Your task to perform on an android device: Clear the cart on costco.com. Add "asus zenbook" to the cart on costco.com Image 0: 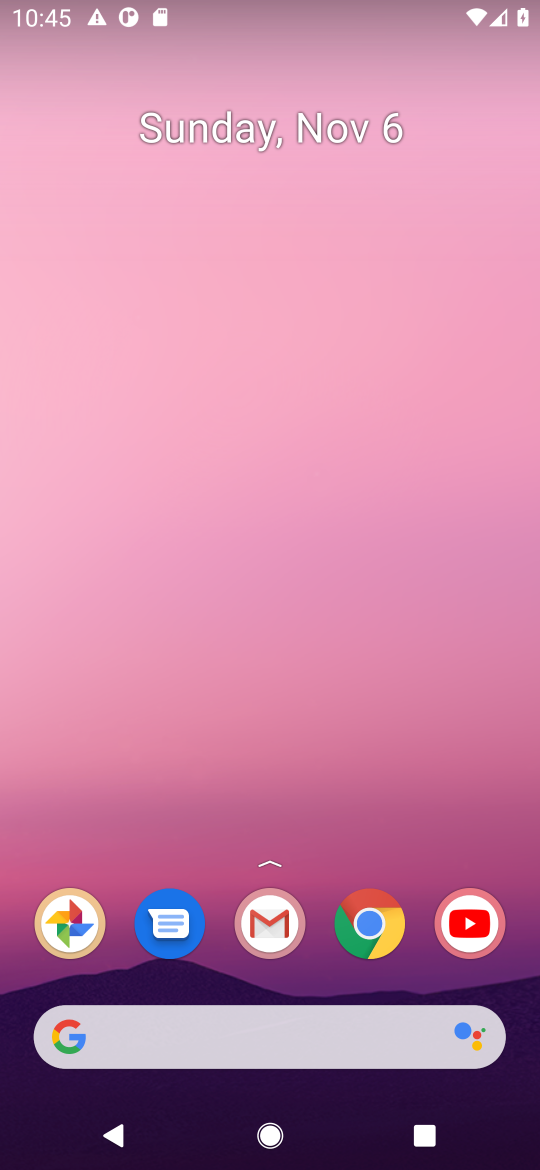
Step 0: click (373, 925)
Your task to perform on an android device: Clear the cart on costco.com. Add "asus zenbook" to the cart on costco.com Image 1: 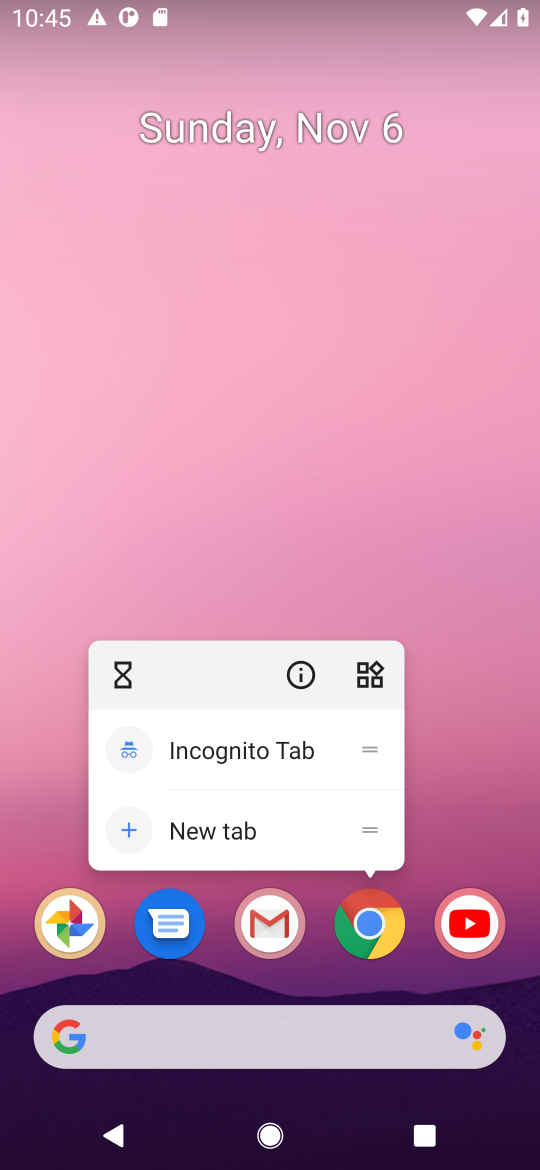
Step 1: click (373, 925)
Your task to perform on an android device: Clear the cart on costco.com. Add "asus zenbook" to the cart on costco.com Image 2: 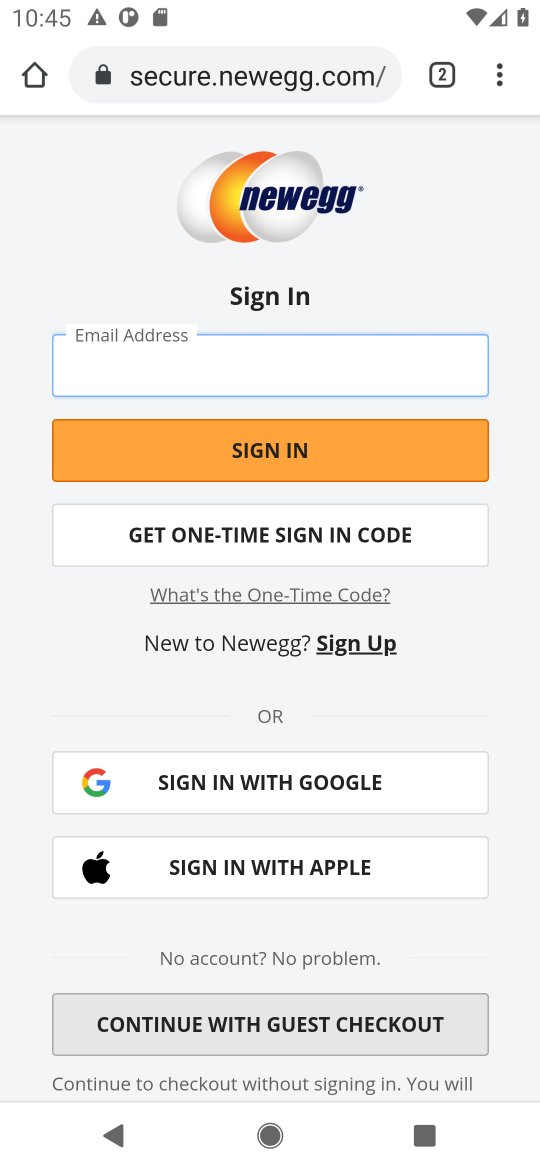
Step 2: click (152, 86)
Your task to perform on an android device: Clear the cart on costco.com. Add "asus zenbook" to the cart on costco.com Image 3: 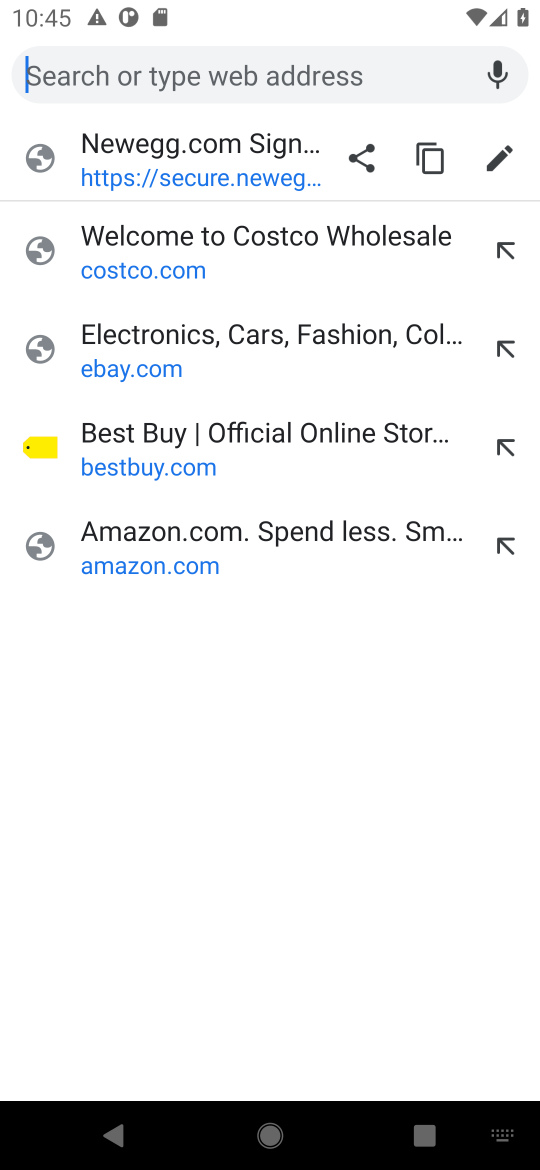
Step 3: click (138, 268)
Your task to perform on an android device: Clear the cart on costco.com. Add "asus zenbook" to the cart on costco.com Image 4: 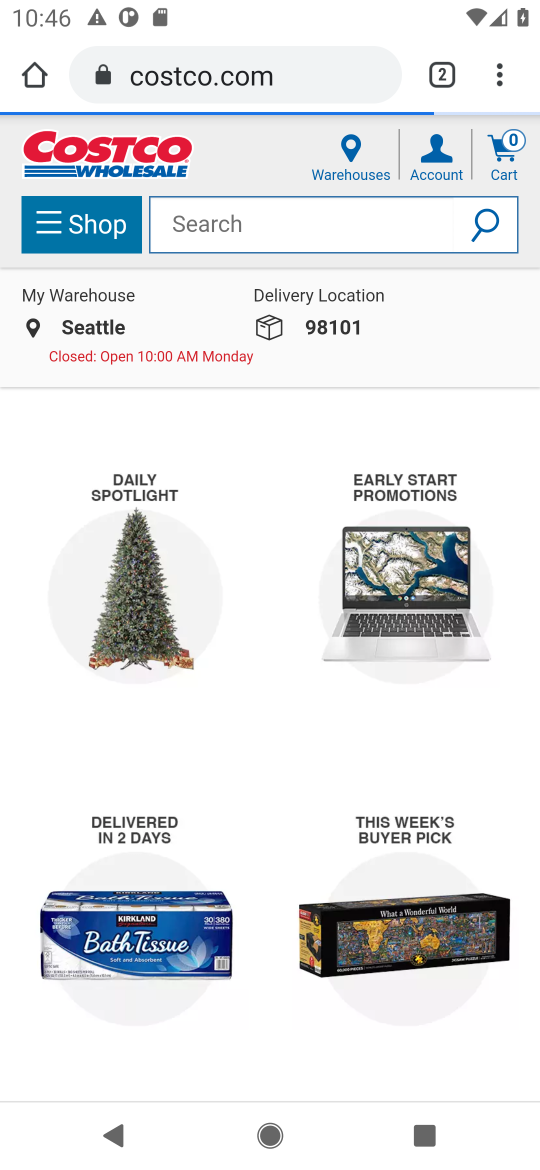
Step 4: click (510, 154)
Your task to perform on an android device: Clear the cart on costco.com. Add "asus zenbook" to the cart on costco.com Image 5: 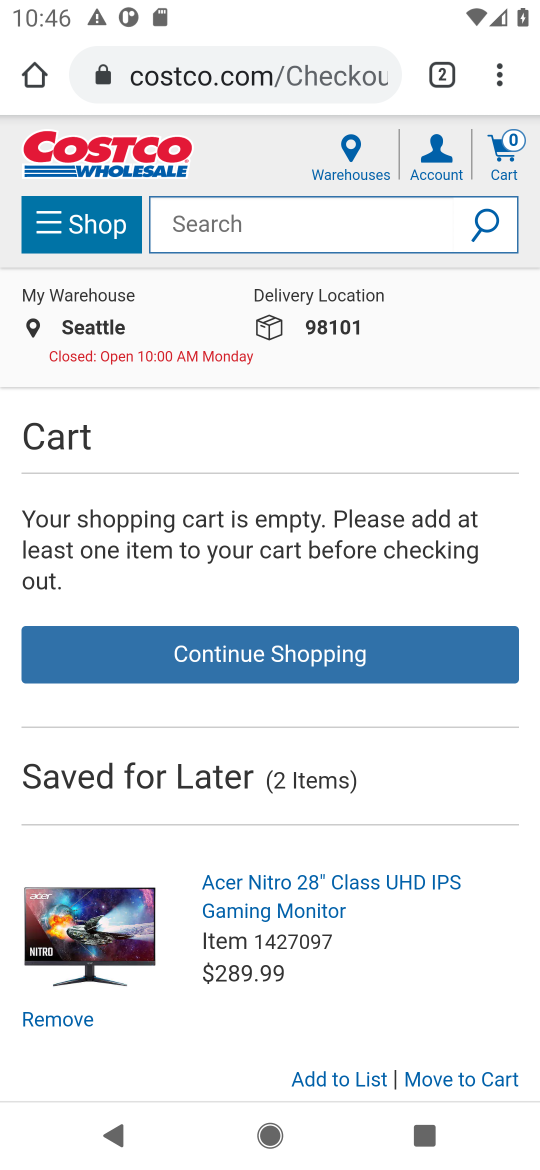
Step 5: click (207, 236)
Your task to perform on an android device: Clear the cart on costco.com. Add "asus zenbook" to the cart on costco.com Image 6: 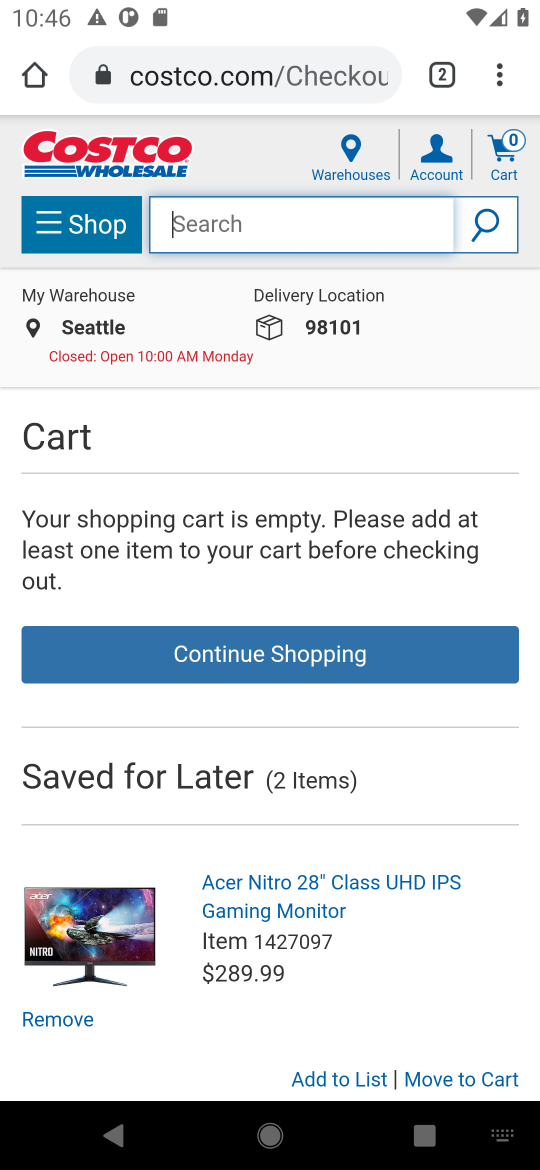
Step 6: type "asus zenbook"
Your task to perform on an android device: Clear the cart on costco.com. Add "asus zenbook" to the cart on costco.com Image 7: 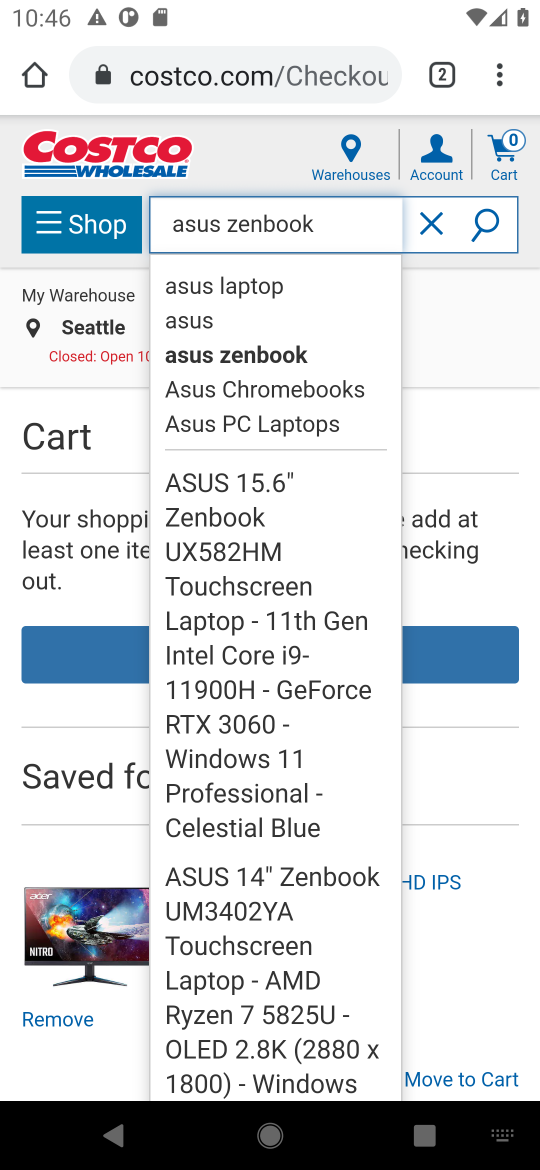
Step 7: click (208, 358)
Your task to perform on an android device: Clear the cart on costco.com. Add "asus zenbook" to the cart on costco.com Image 8: 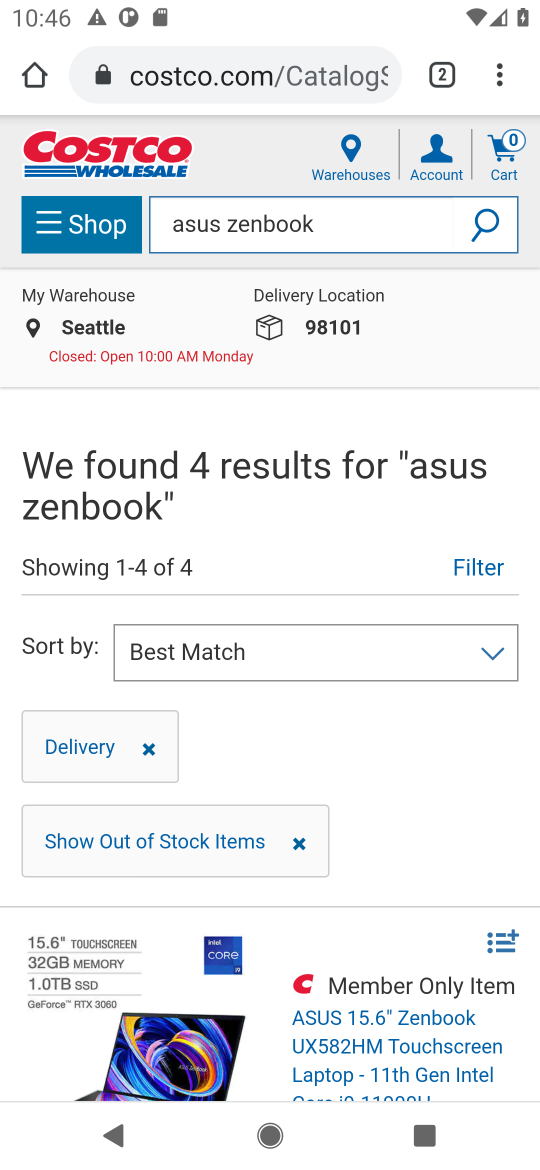
Step 8: drag from (315, 893) to (363, 557)
Your task to perform on an android device: Clear the cart on costco.com. Add "asus zenbook" to the cart on costco.com Image 9: 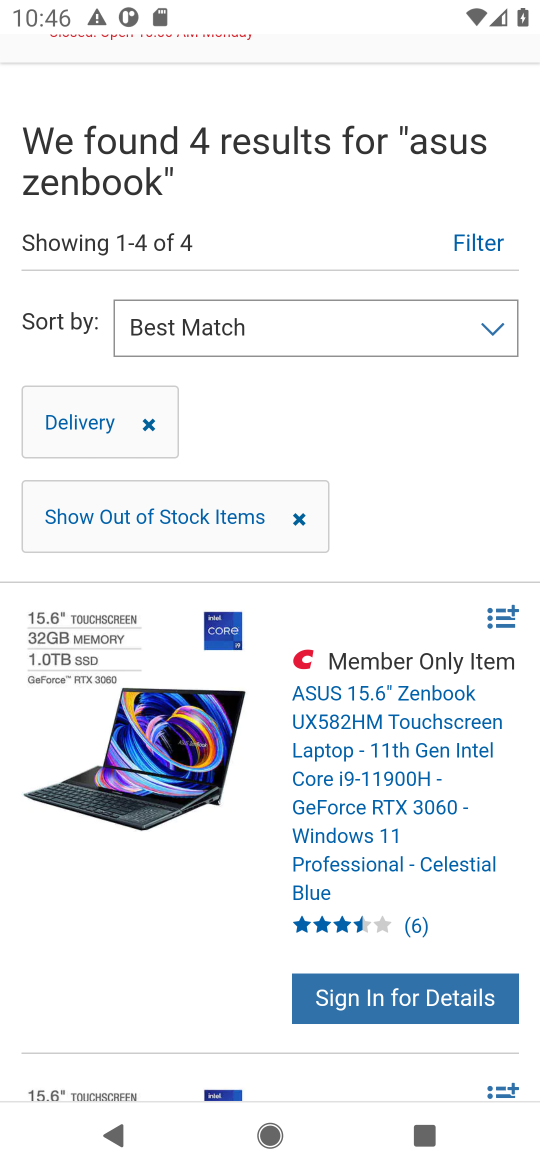
Step 9: drag from (292, 849) to (308, 444)
Your task to perform on an android device: Clear the cart on costco.com. Add "asus zenbook" to the cart on costco.com Image 10: 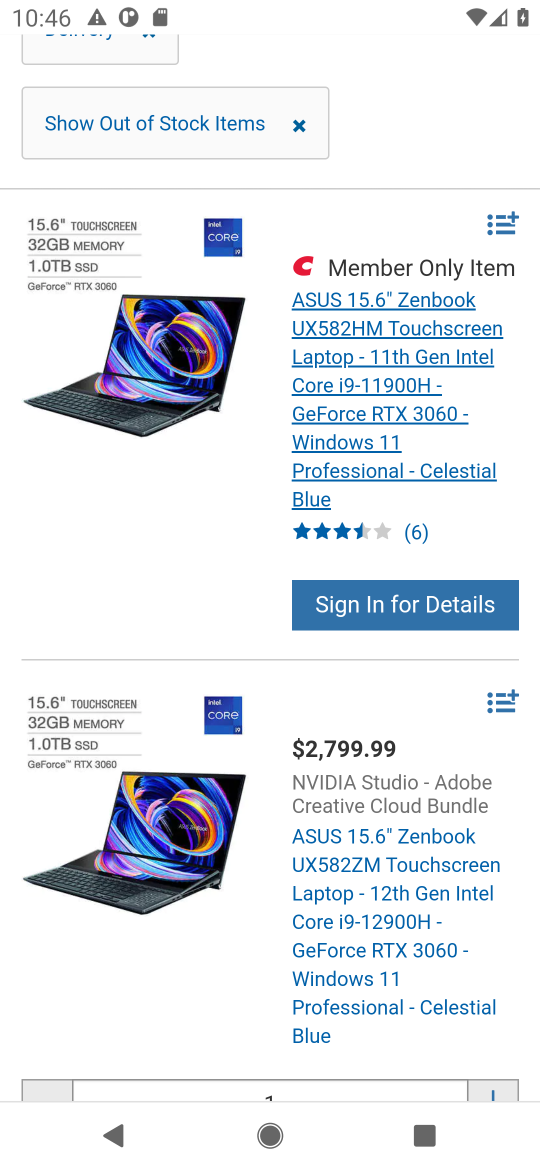
Step 10: drag from (247, 926) to (264, 683)
Your task to perform on an android device: Clear the cart on costco.com. Add "asus zenbook" to the cart on costco.com Image 11: 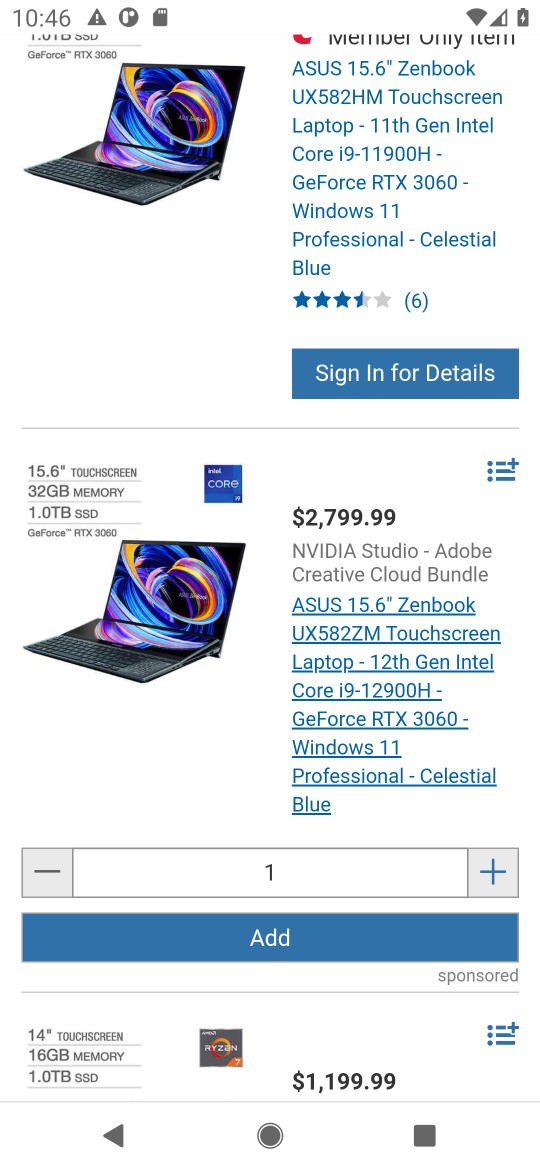
Step 11: click (264, 941)
Your task to perform on an android device: Clear the cart on costco.com. Add "asus zenbook" to the cart on costco.com Image 12: 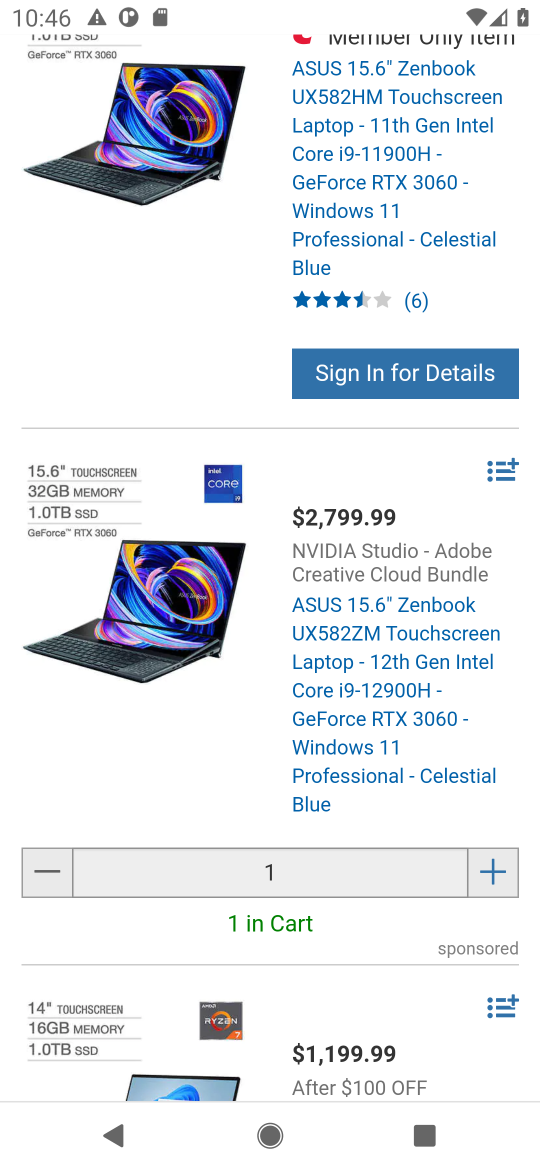
Step 12: drag from (136, 380) to (101, 795)
Your task to perform on an android device: Clear the cart on costco.com. Add "asus zenbook" to the cart on costco.com Image 13: 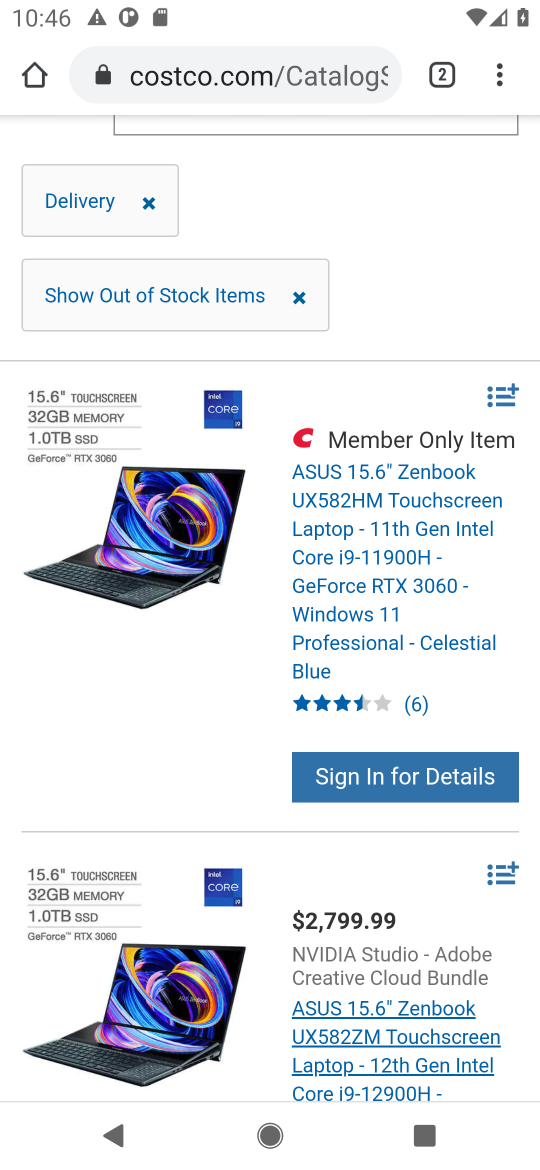
Step 13: drag from (344, 268) to (342, 638)
Your task to perform on an android device: Clear the cart on costco.com. Add "asus zenbook" to the cart on costco.com Image 14: 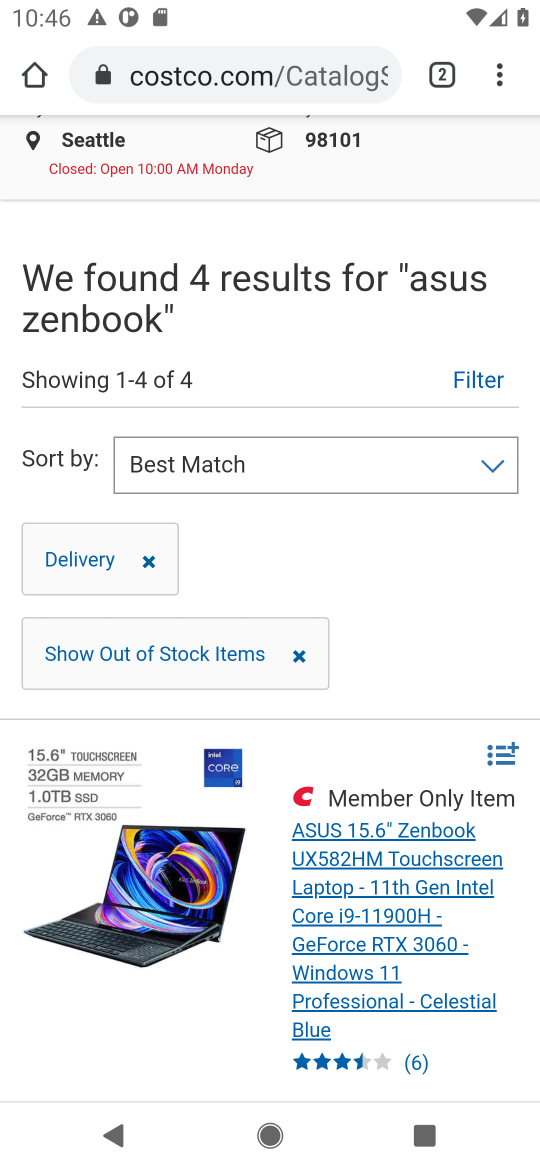
Step 14: drag from (422, 188) to (367, 651)
Your task to perform on an android device: Clear the cart on costco.com. Add "asus zenbook" to the cart on costco.com Image 15: 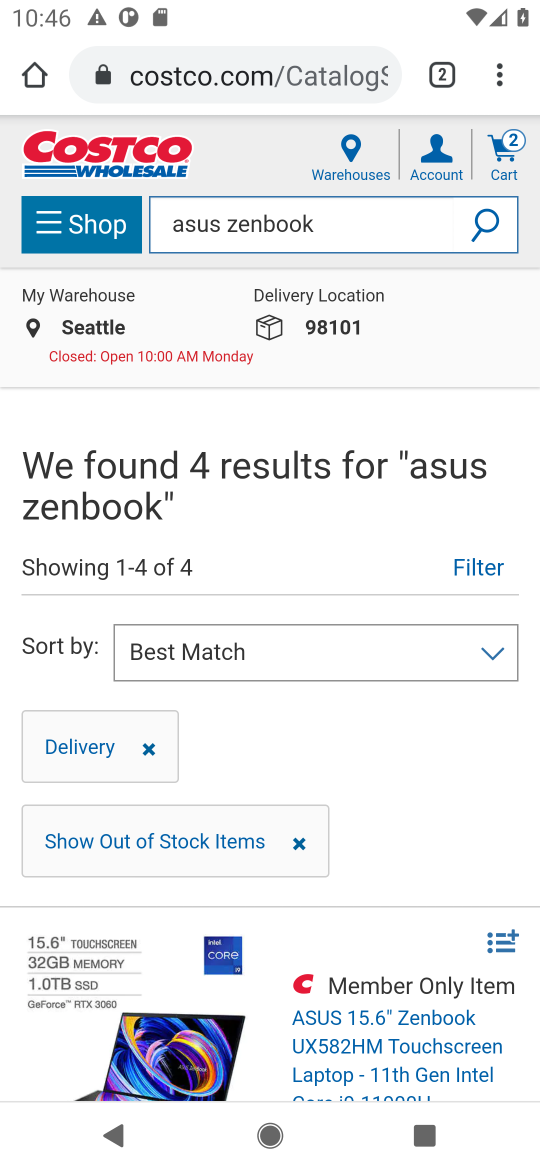
Step 15: click (501, 149)
Your task to perform on an android device: Clear the cart on costco.com. Add "asus zenbook" to the cart on costco.com Image 16: 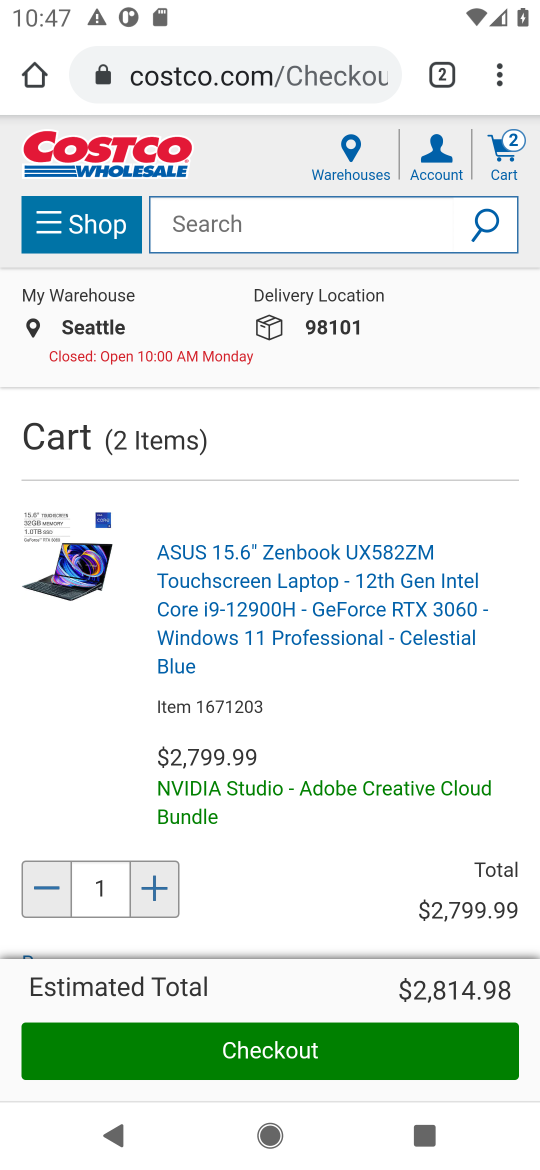
Step 16: task complete